Your task to perform on an android device: open app "Upside-Cash back on gas & food" Image 0: 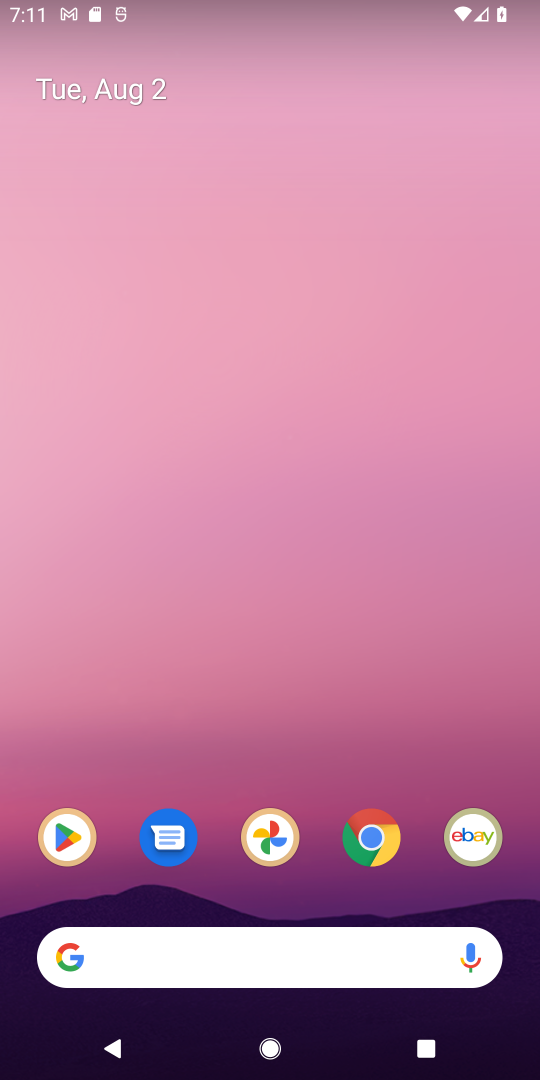
Step 0: click (65, 833)
Your task to perform on an android device: open app "Upside-Cash back on gas & food" Image 1: 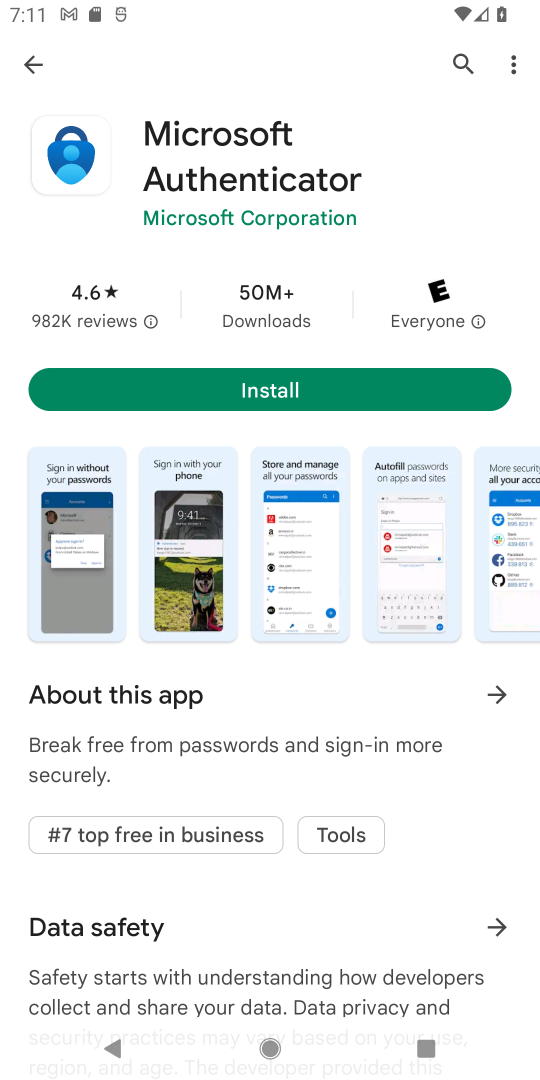
Step 1: drag from (385, 221) to (362, 984)
Your task to perform on an android device: open app "Upside-Cash back on gas & food" Image 2: 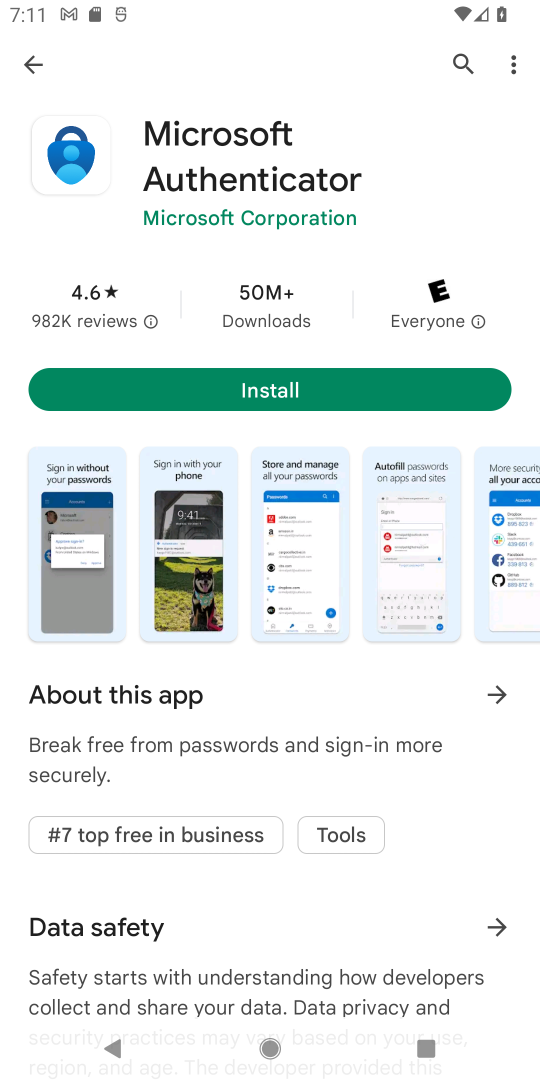
Step 2: press home button
Your task to perform on an android device: open app "Upside-Cash back on gas & food" Image 3: 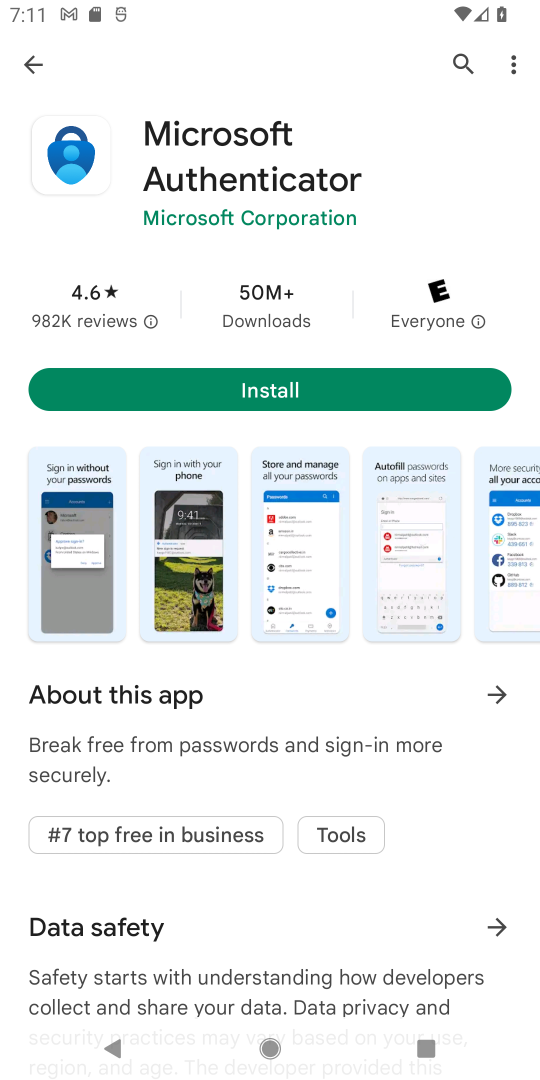
Step 3: press home button
Your task to perform on an android device: open app "Upside-Cash back on gas & food" Image 4: 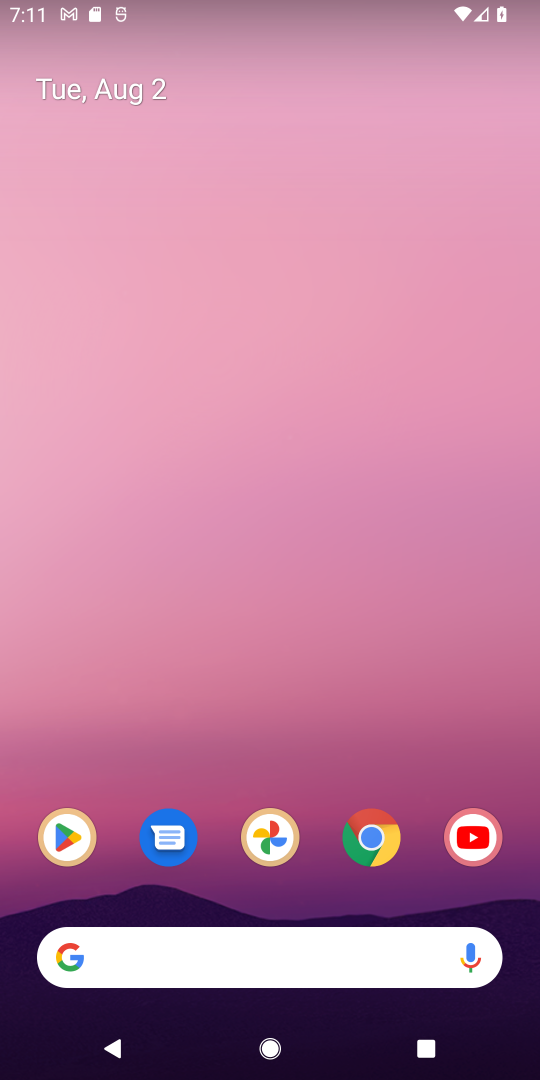
Step 4: drag from (281, 950) to (389, 150)
Your task to perform on an android device: open app "Upside-Cash back on gas & food" Image 5: 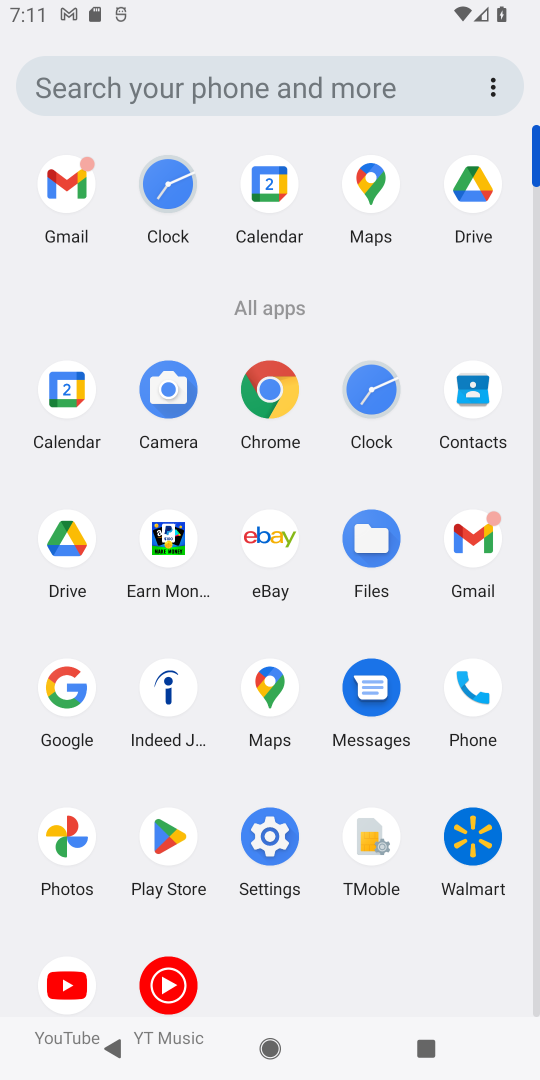
Step 5: click (176, 832)
Your task to perform on an android device: open app "Upside-Cash back on gas & food" Image 6: 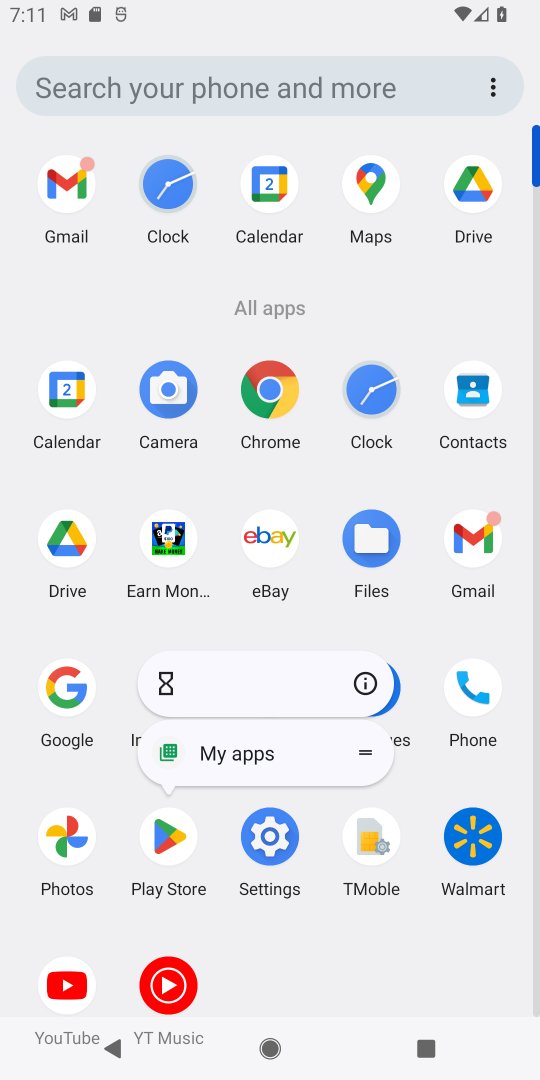
Step 6: click (368, 692)
Your task to perform on an android device: open app "Upside-Cash back on gas & food" Image 7: 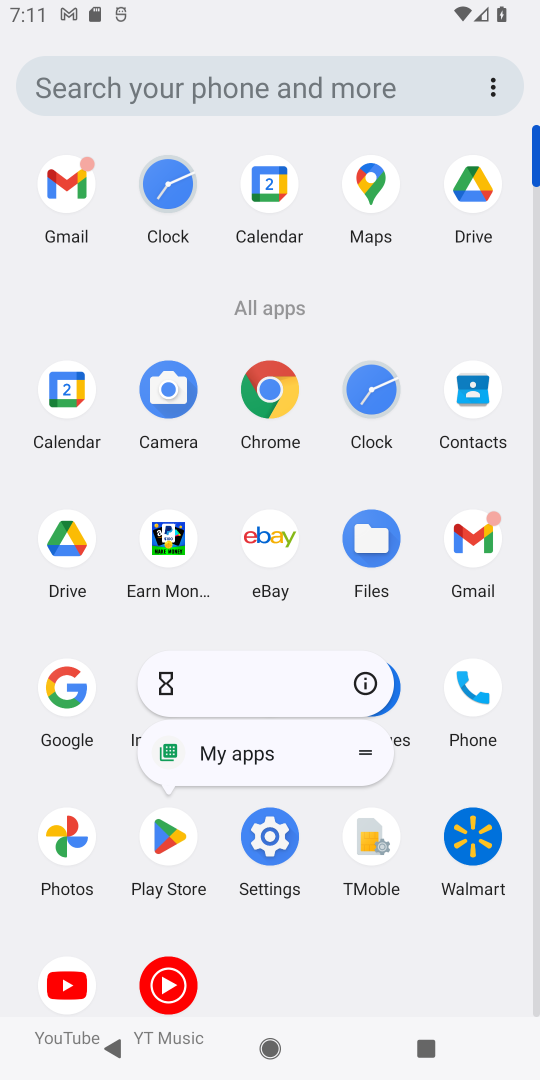
Step 7: click (365, 673)
Your task to perform on an android device: open app "Upside-Cash back on gas & food" Image 8: 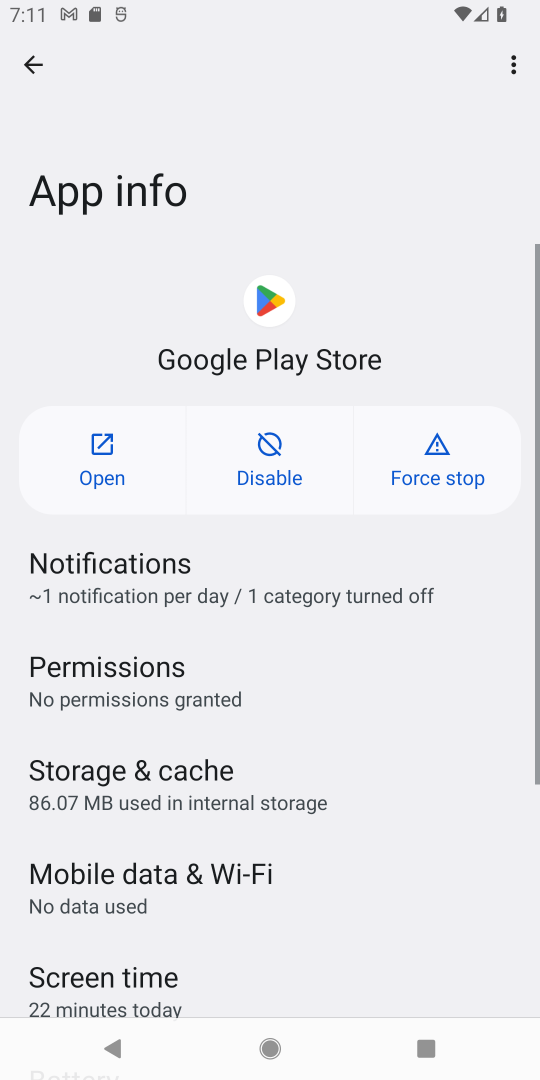
Step 8: click (84, 453)
Your task to perform on an android device: open app "Upside-Cash back on gas & food" Image 9: 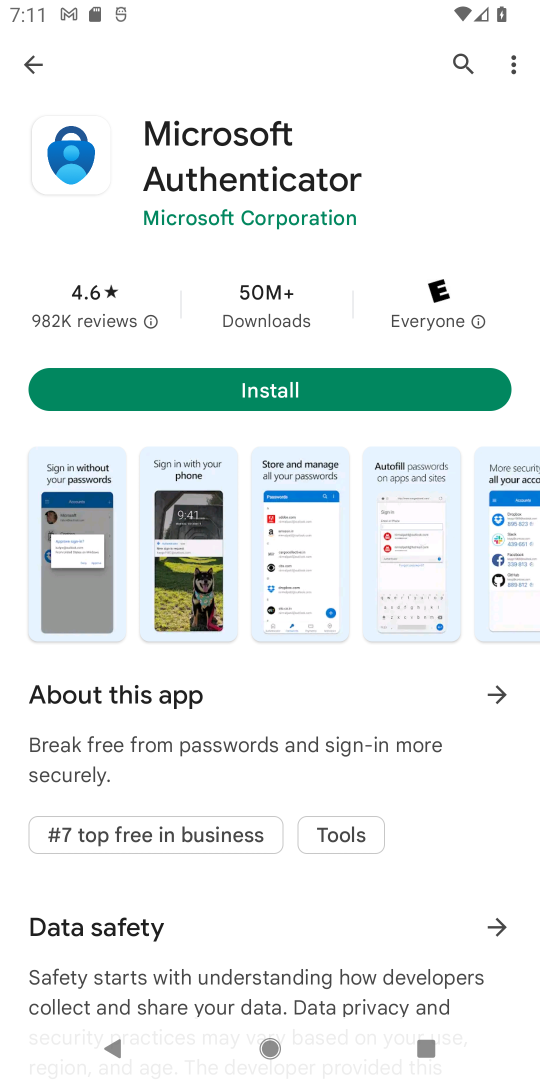
Step 9: drag from (375, 186) to (334, 713)
Your task to perform on an android device: open app "Upside-Cash back on gas & food" Image 10: 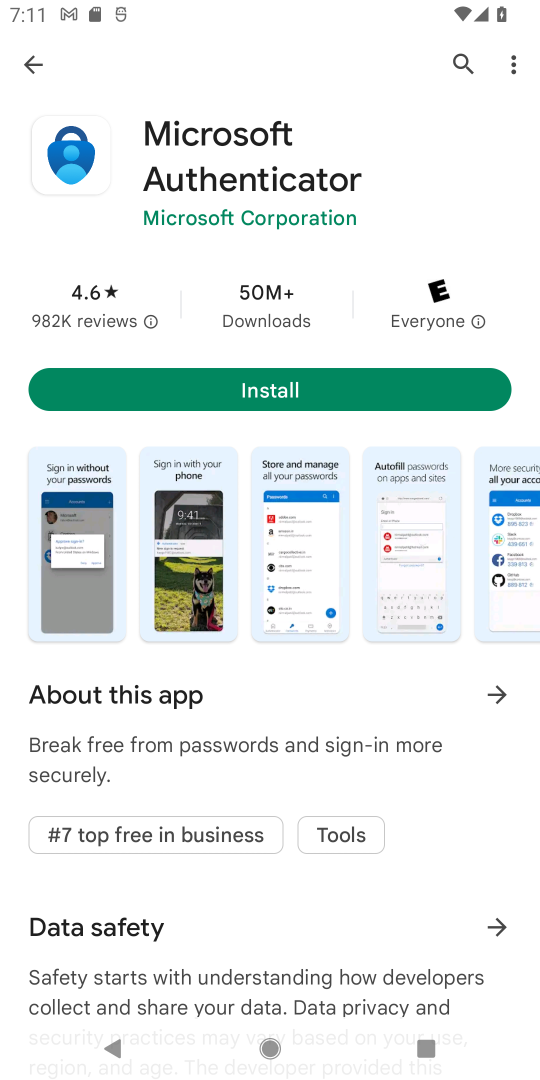
Step 10: click (472, 50)
Your task to perform on an android device: open app "Upside-Cash back on gas & food" Image 11: 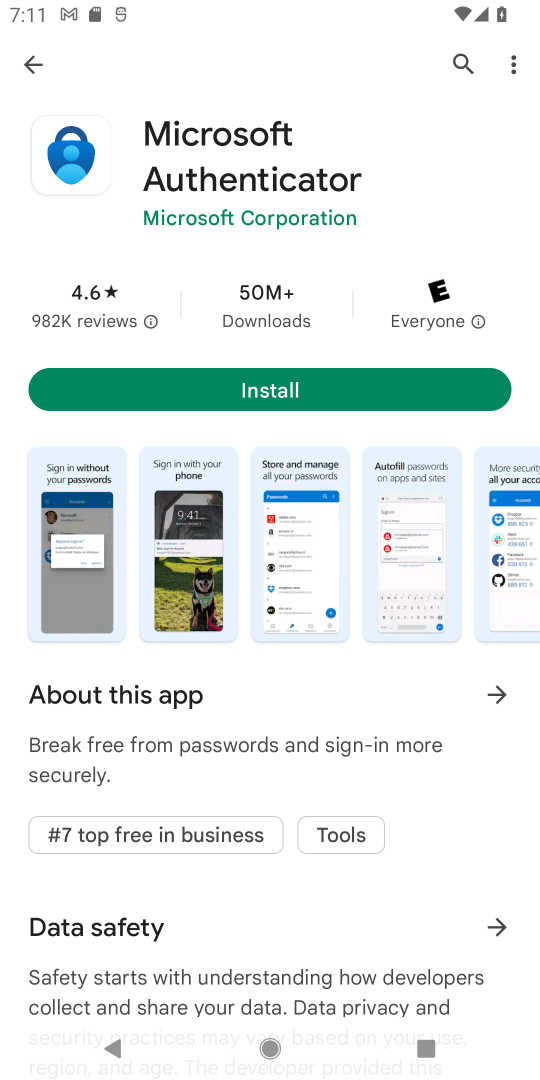
Step 11: click (460, 62)
Your task to perform on an android device: open app "Upside-Cash back on gas & food" Image 12: 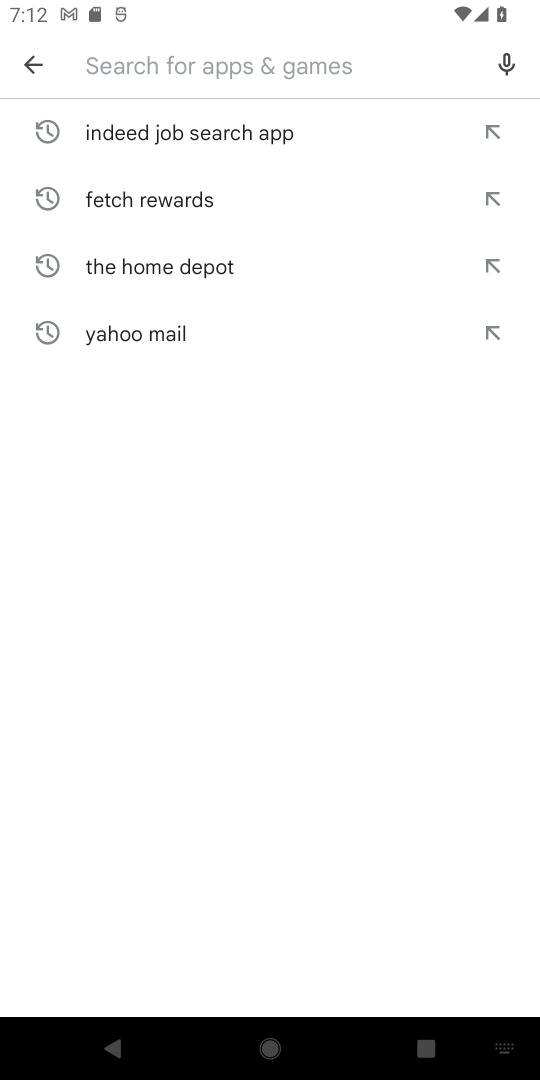
Step 12: click (213, 58)
Your task to perform on an android device: open app "Upside-Cash back on gas & food" Image 13: 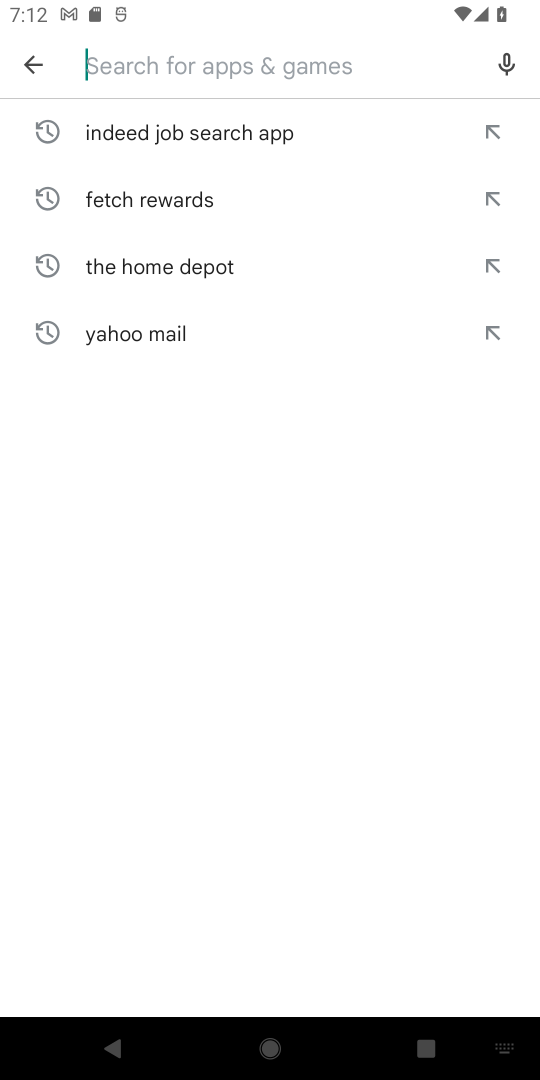
Step 13: type "Upside-Cash back on gas & food"
Your task to perform on an android device: open app "Upside-Cash back on gas & food" Image 14: 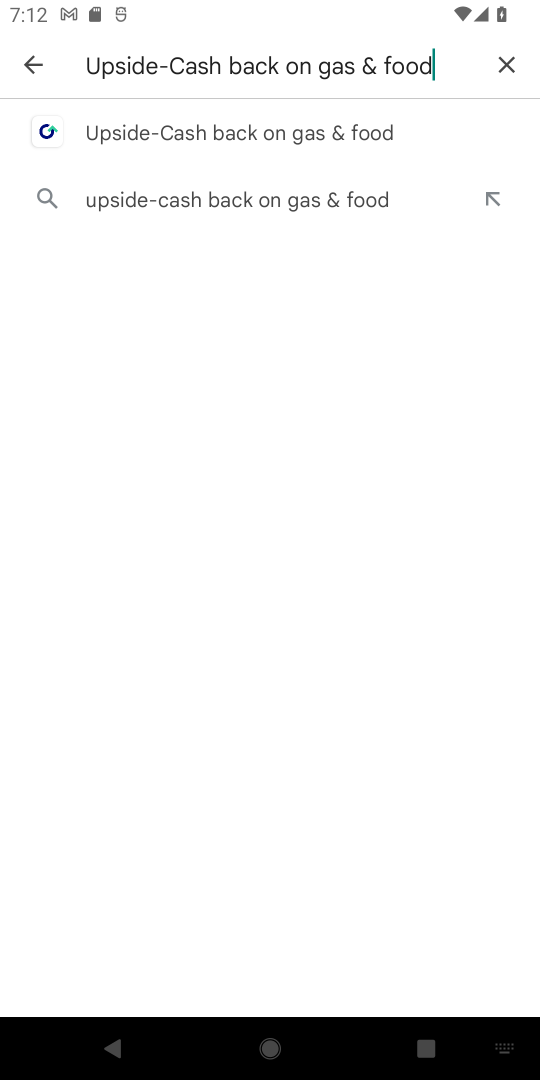
Step 14: click (186, 153)
Your task to perform on an android device: open app "Upside-Cash back on gas & food" Image 15: 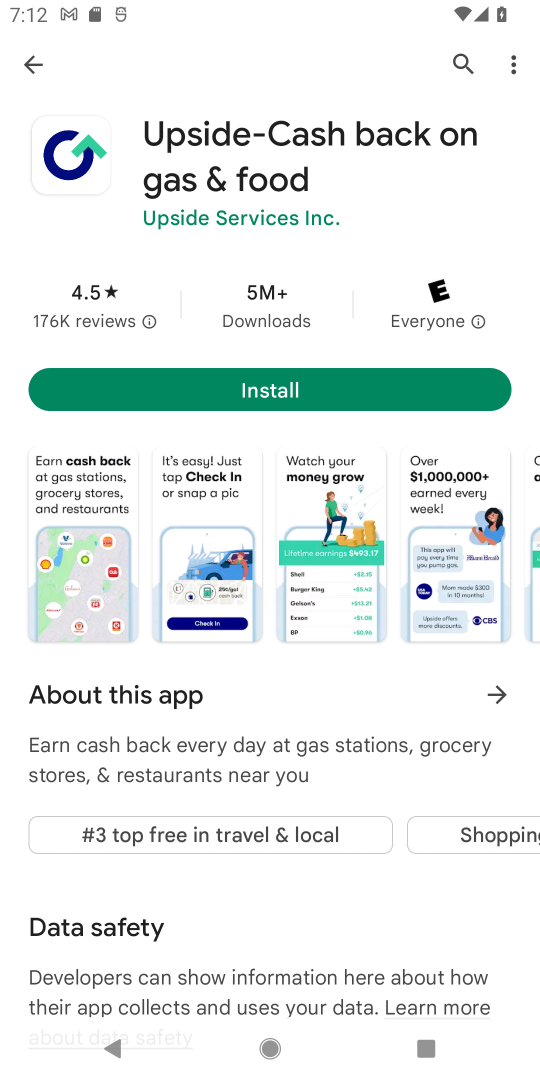
Step 15: drag from (268, 247) to (380, 698)
Your task to perform on an android device: open app "Upside-Cash back on gas & food" Image 16: 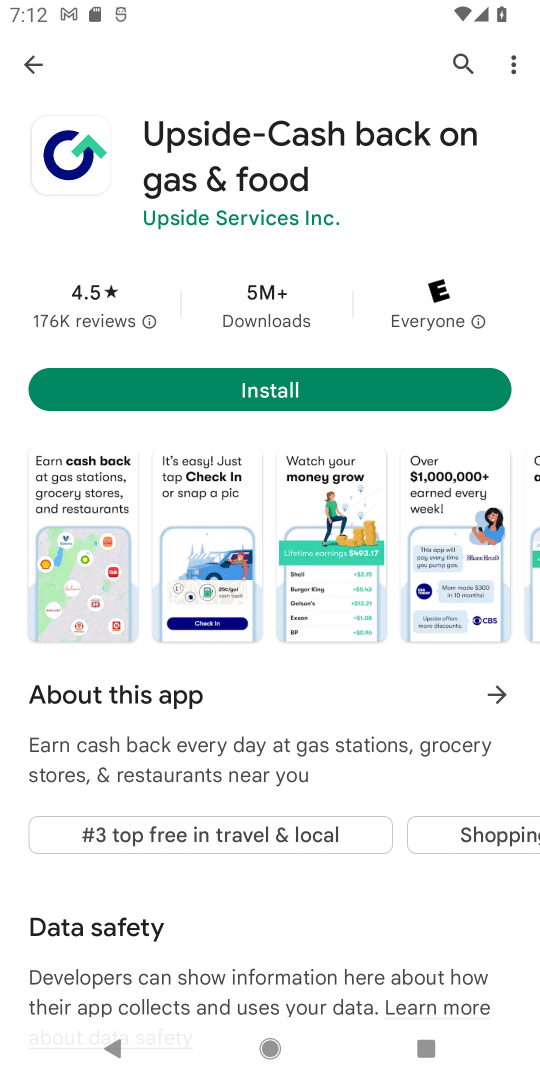
Step 16: drag from (248, 159) to (382, 958)
Your task to perform on an android device: open app "Upside-Cash back on gas & food" Image 17: 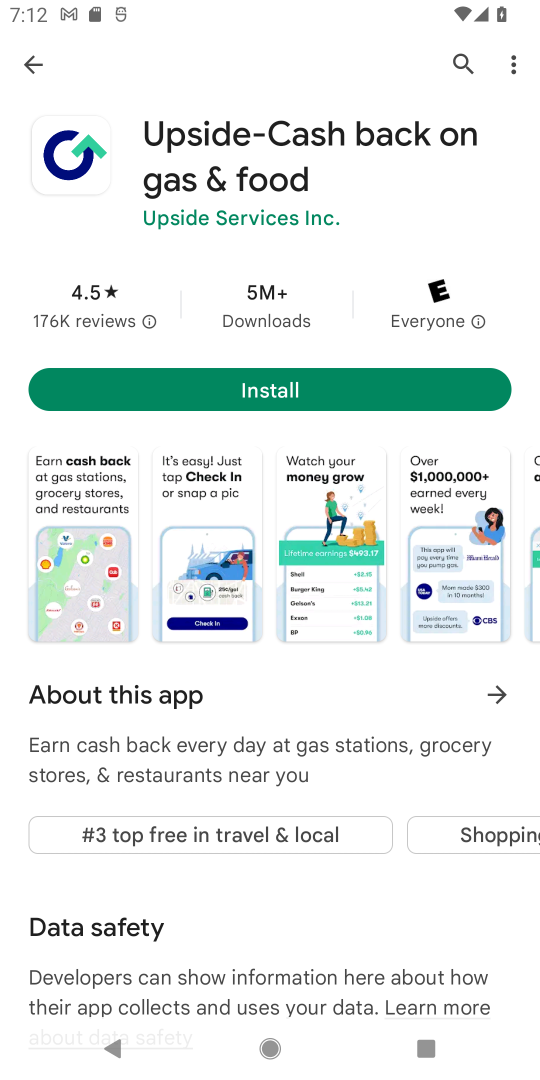
Step 17: drag from (241, 127) to (368, 666)
Your task to perform on an android device: open app "Upside-Cash back on gas & food" Image 18: 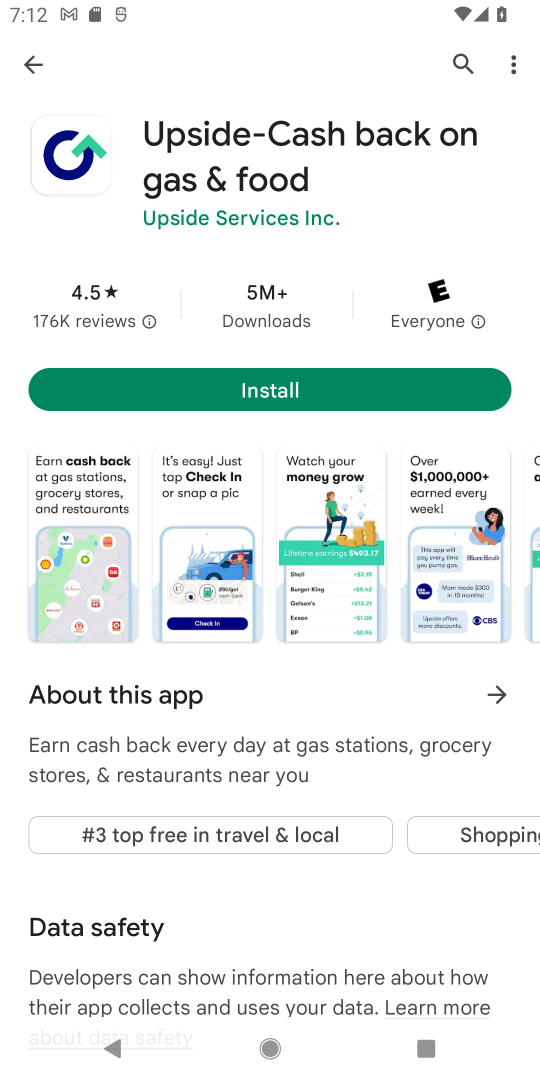
Step 18: drag from (302, 159) to (316, 645)
Your task to perform on an android device: open app "Upside-Cash back on gas & food" Image 19: 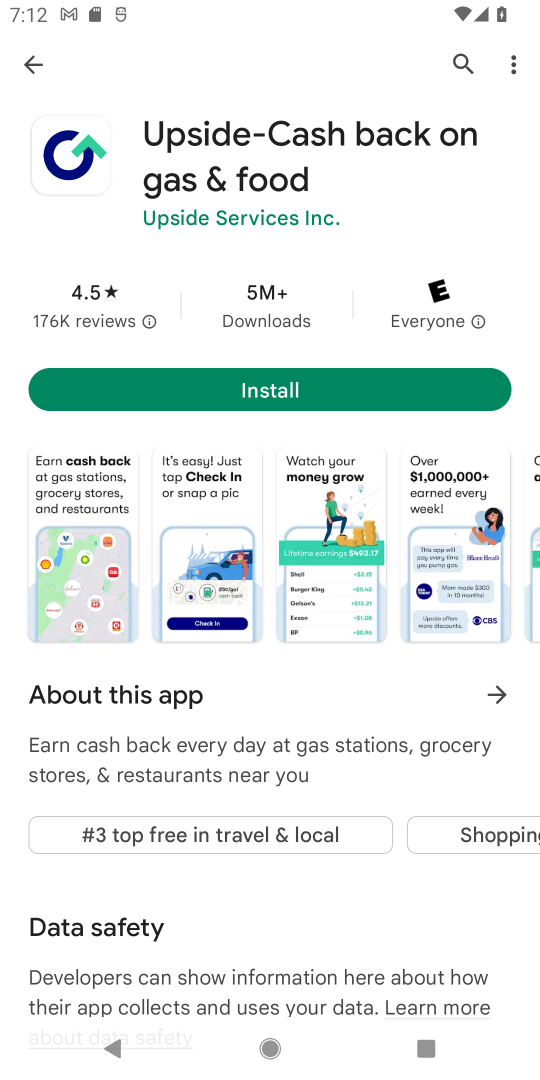
Step 19: drag from (354, 152) to (350, 848)
Your task to perform on an android device: open app "Upside-Cash back on gas & food" Image 20: 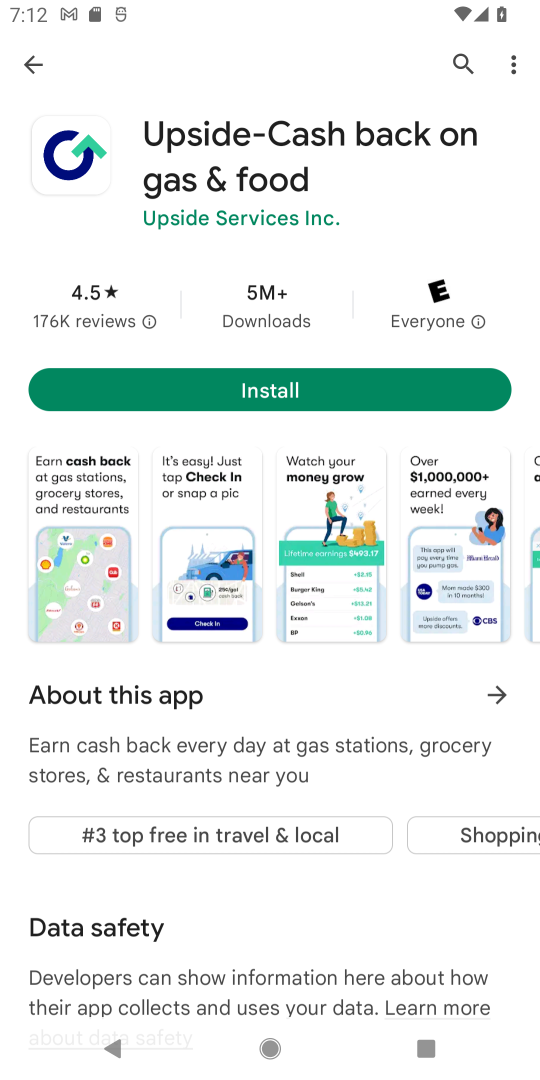
Step 20: drag from (378, 190) to (321, 853)
Your task to perform on an android device: open app "Upside-Cash back on gas & food" Image 21: 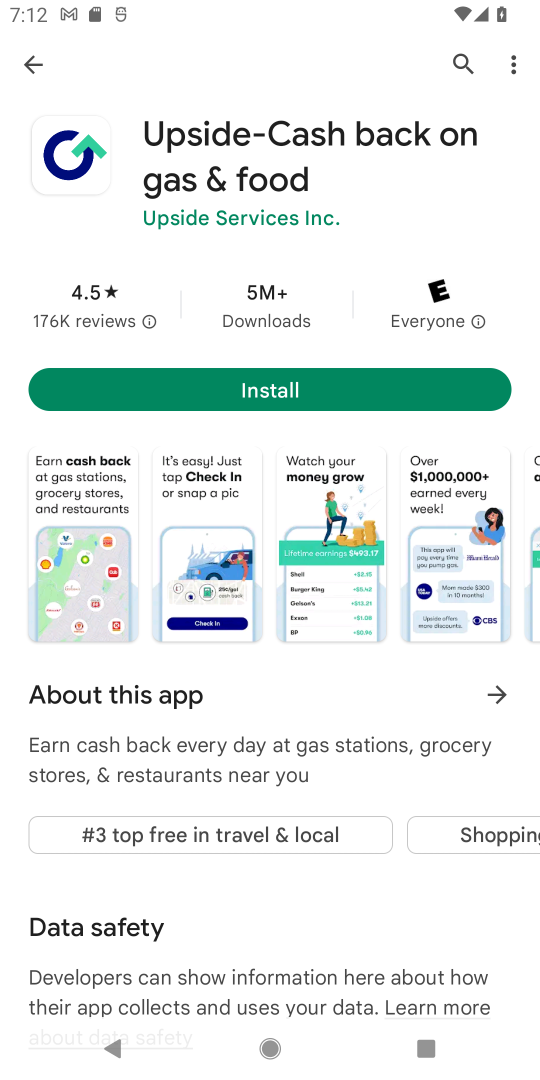
Step 21: drag from (355, 144) to (319, 1074)
Your task to perform on an android device: open app "Upside-Cash back on gas & food" Image 22: 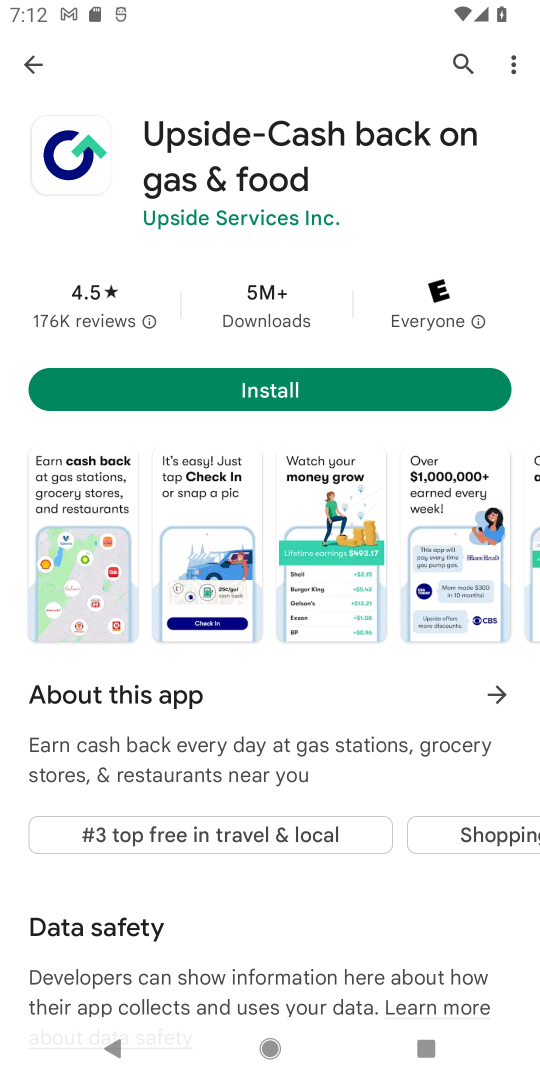
Step 22: drag from (284, 158) to (313, 826)
Your task to perform on an android device: open app "Upside-Cash back on gas & food" Image 23: 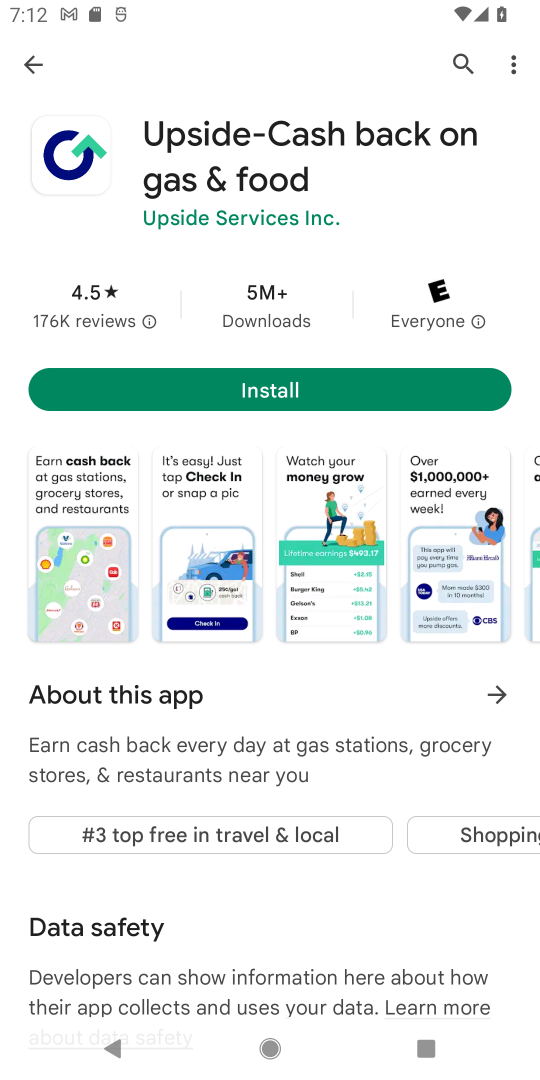
Step 23: drag from (349, 217) to (337, 913)
Your task to perform on an android device: open app "Upside-Cash back on gas & food" Image 24: 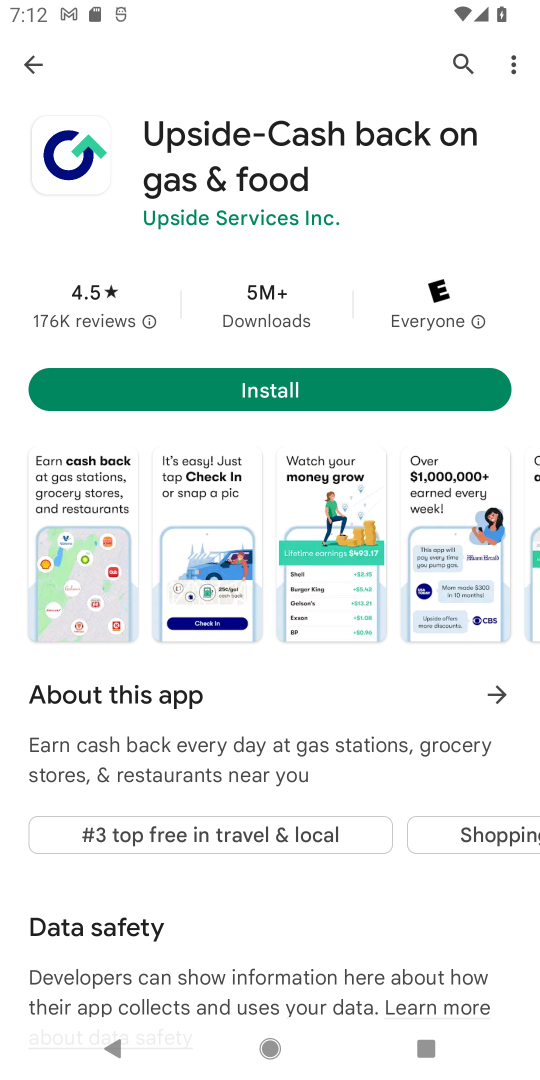
Step 24: drag from (341, 380) to (303, 966)
Your task to perform on an android device: open app "Upside-Cash back on gas & food" Image 25: 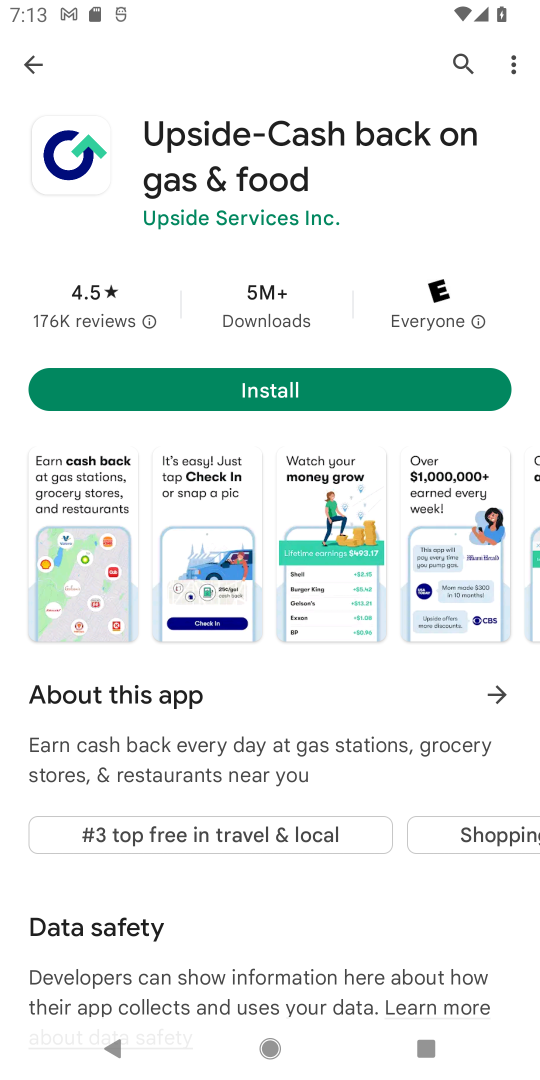
Step 25: drag from (365, 224) to (291, 783)
Your task to perform on an android device: open app "Upside-Cash back on gas & food" Image 26: 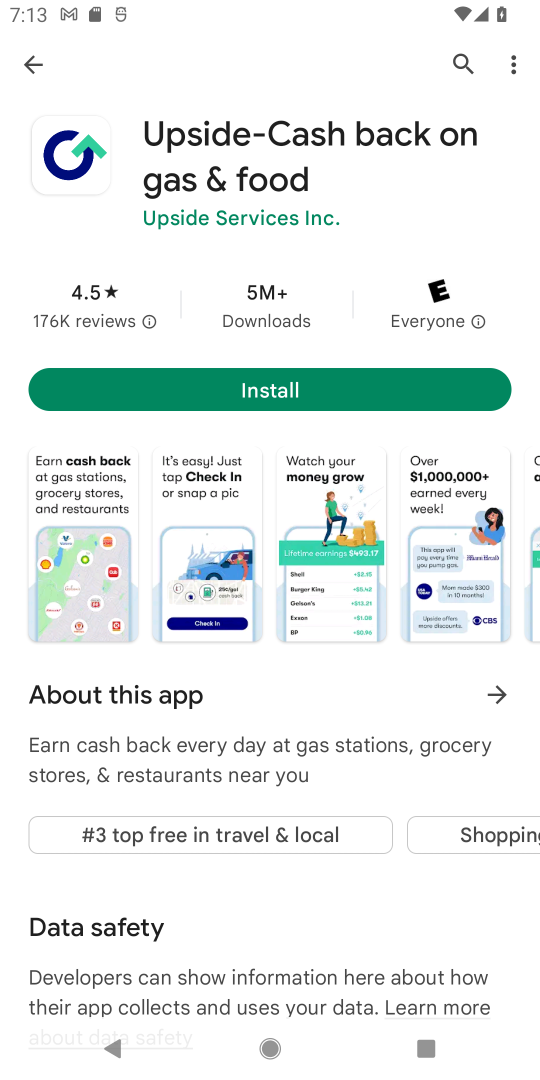
Step 26: drag from (345, 226) to (528, 234)
Your task to perform on an android device: open app "Upside-Cash back on gas & food" Image 27: 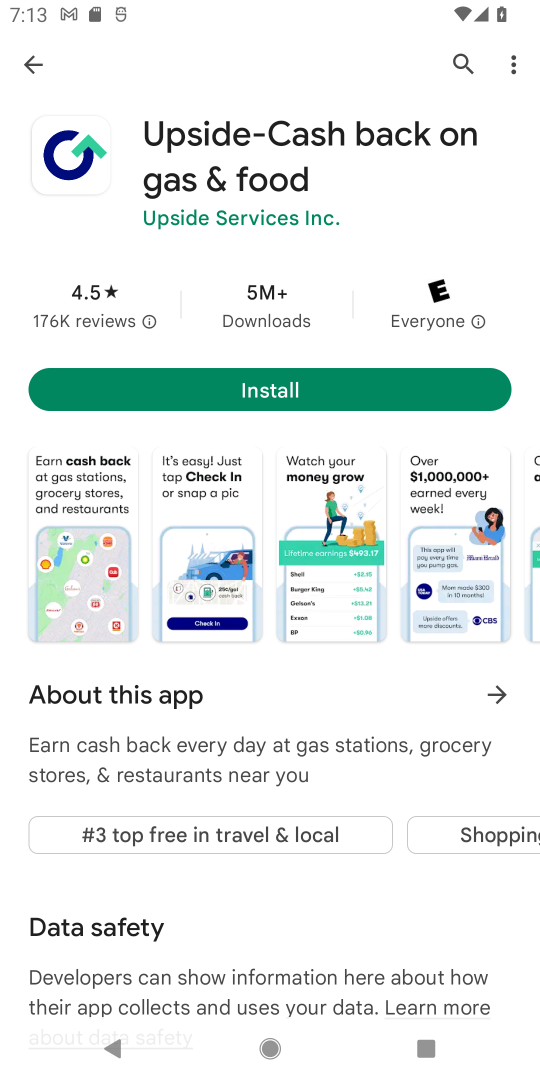
Step 27: drag from (346, 205) to (346, 888)
Your task to perform on an android device: open app "Upside-Cash back on gas & food" Image 28: 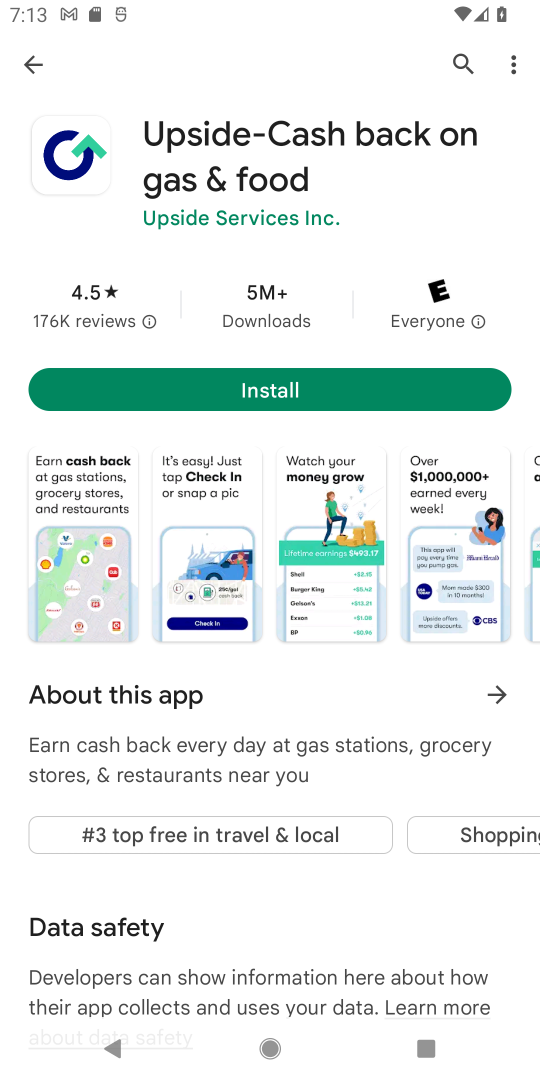
Step 28: drag from (207, 179) to (274, 1031)
Your task to perform on an android device: open app "Upside-Cash back on gas & food" Image 29: 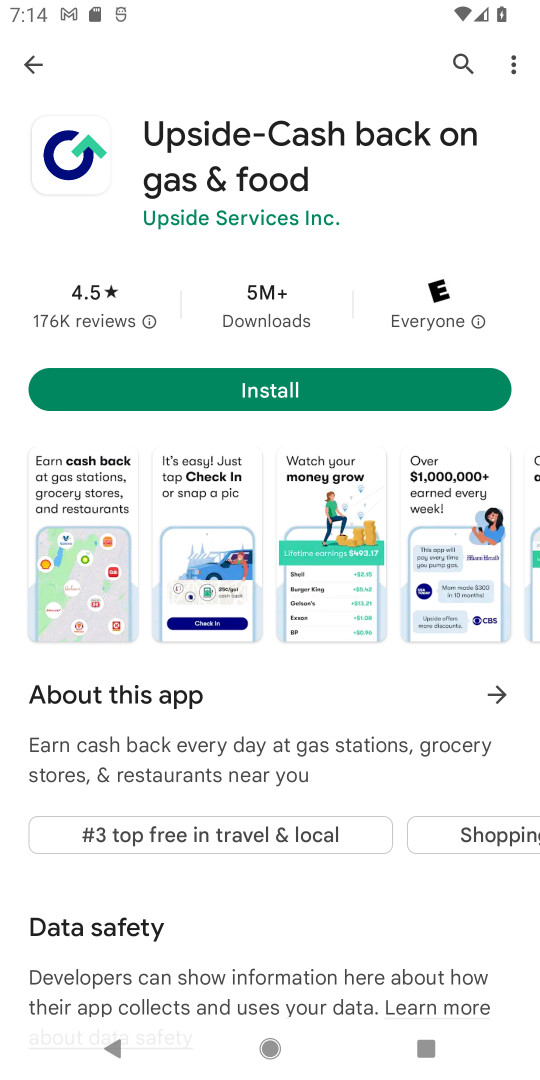
Step 29: drag from (394, 200) to (388, 665)
Your task to perform on an android device: open app "Upside-Cash back on gas & food" Image 30: 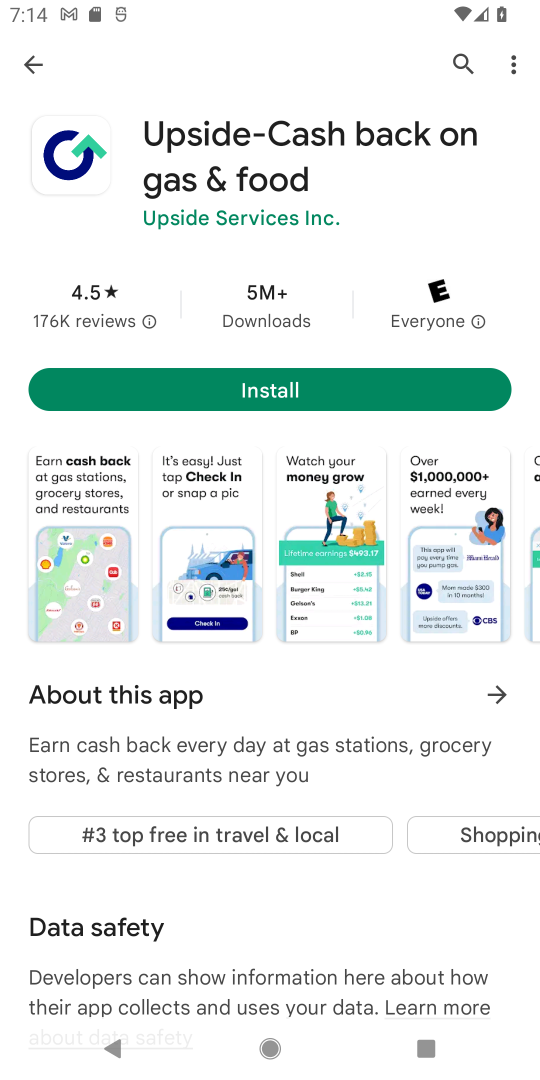
Step 30: drag from (339, 197) to (234, 720)
Your task to perform on an android device: open app "Upside-Cash back on gas & food" Image 31: 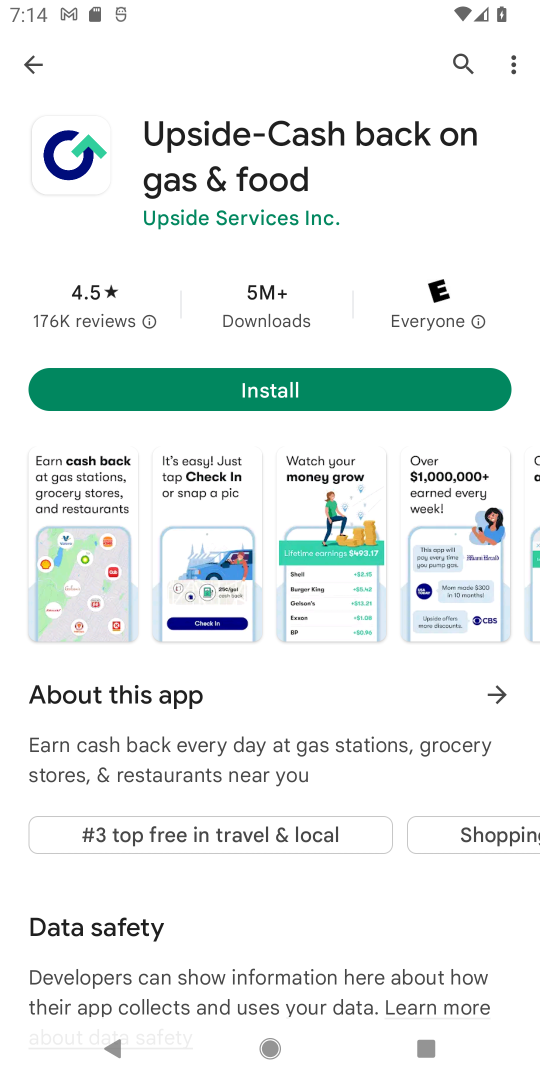
Step 31: drag from (313, 216) to (252, 641)
Your task to perform on an android device: open app "Upside-Cash back on gas & food" Image 32: 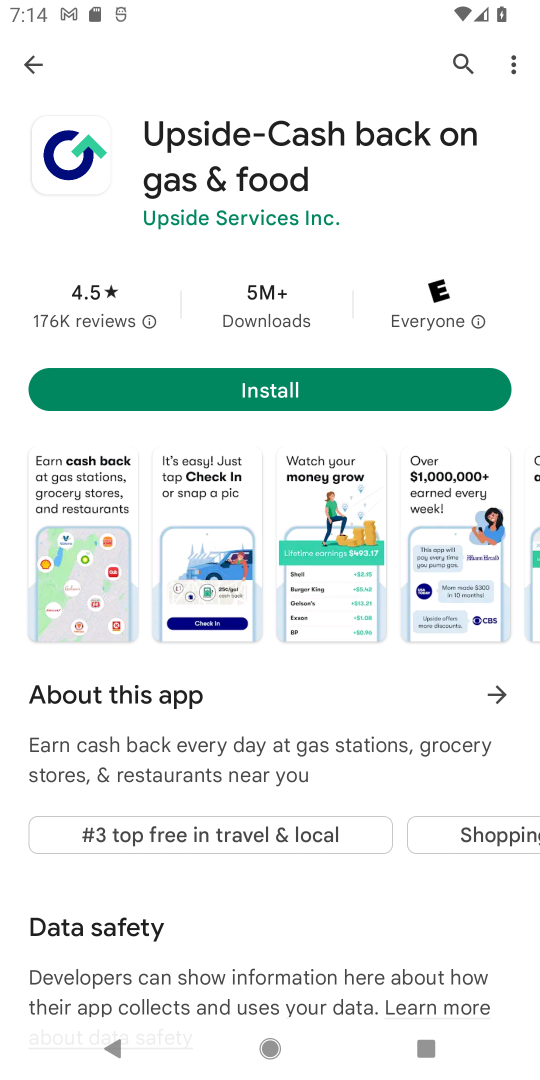
Step 32: drag from (364, 191) to (240, 748)
Your task to perform on an android device: open app "Upside-Cash back on gas & food" Image 33: 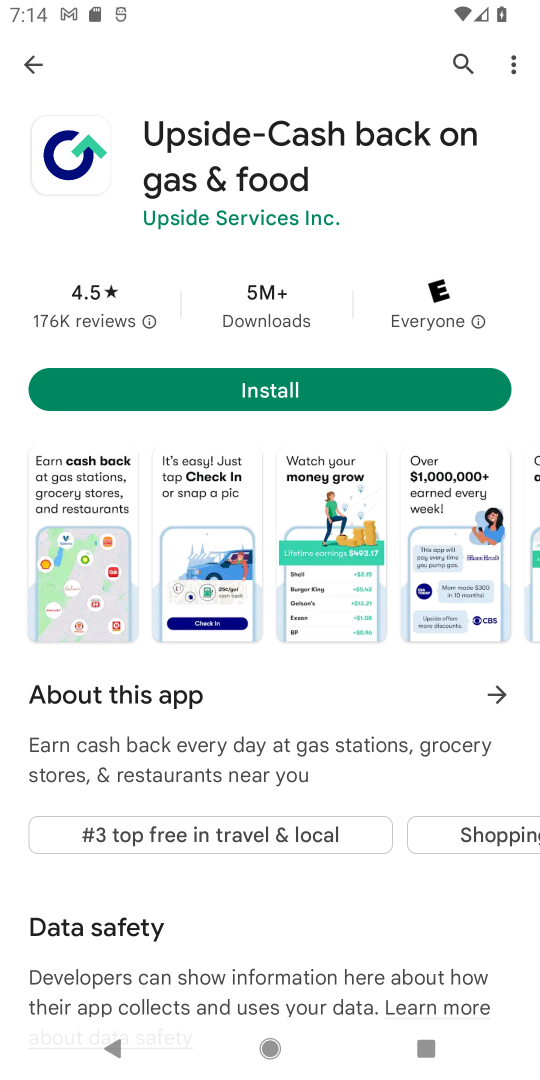
Step 33: click (462, 52)
Your task to perform on an android device: open app "Upside-Cash back on gas & food" Image 34: 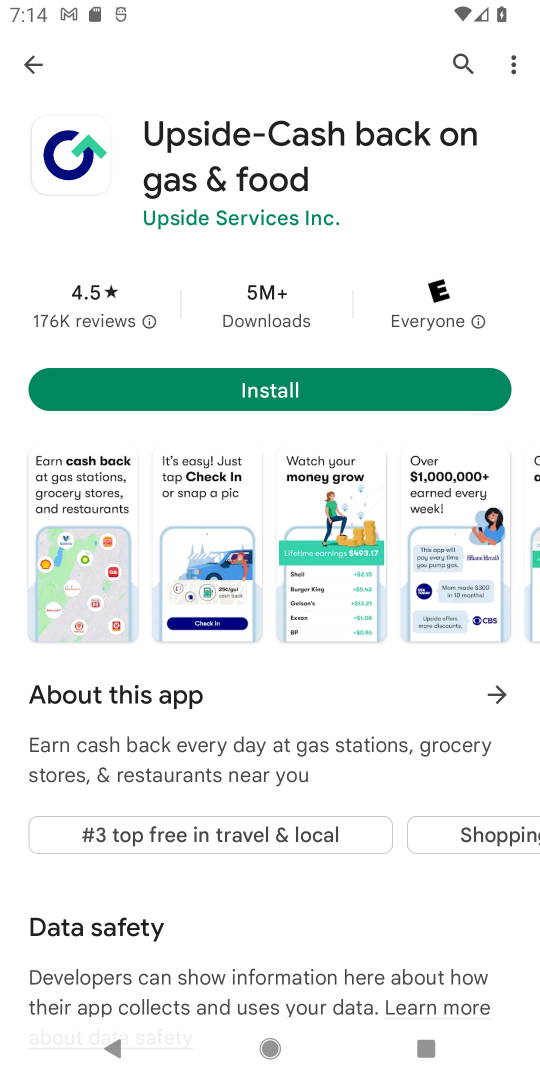
Step 34: click (454, 51)
Your task to perform on an android device: open app "Upside-Cash back on gas & food" Image 35: 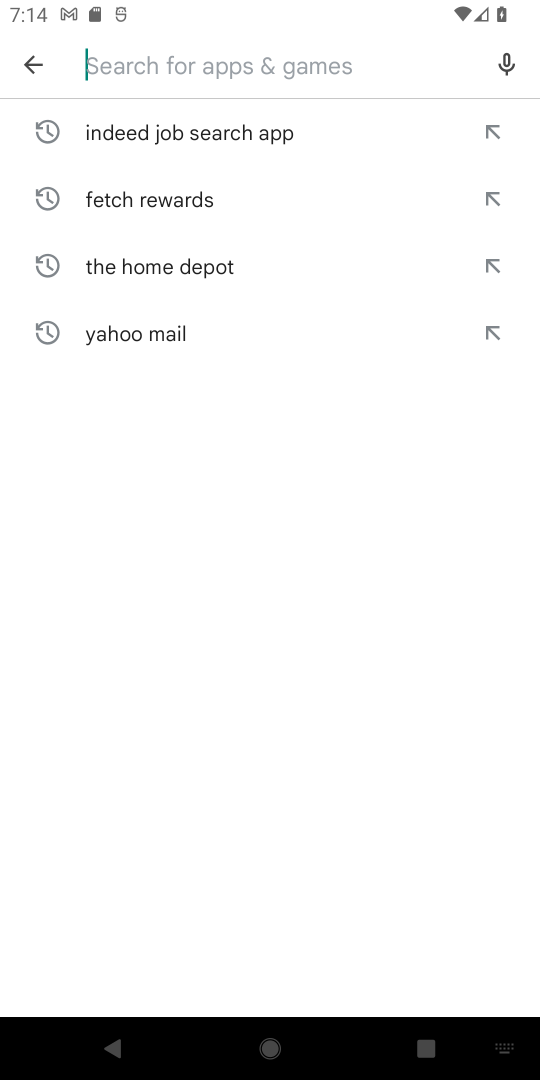
Step 35: type "Upside-Cash back on gas & food"
Your task to perform on an android device: open app "Upside-Cash back on gas & food" Image 36: 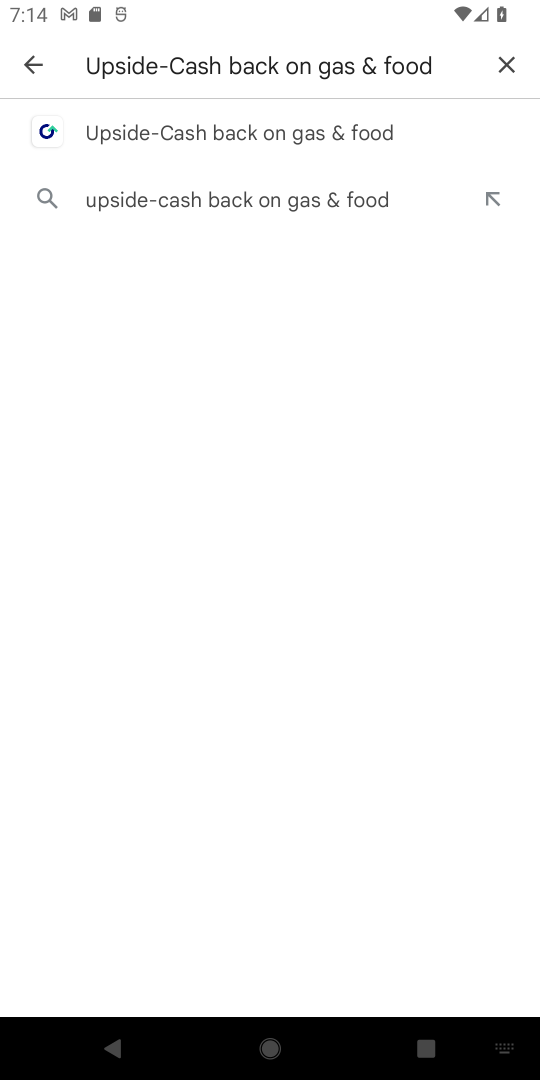
Step 36: click (178, 108)
Your task to perform on an android device: open app "Upside-Cash back on gas & food" Image 37: 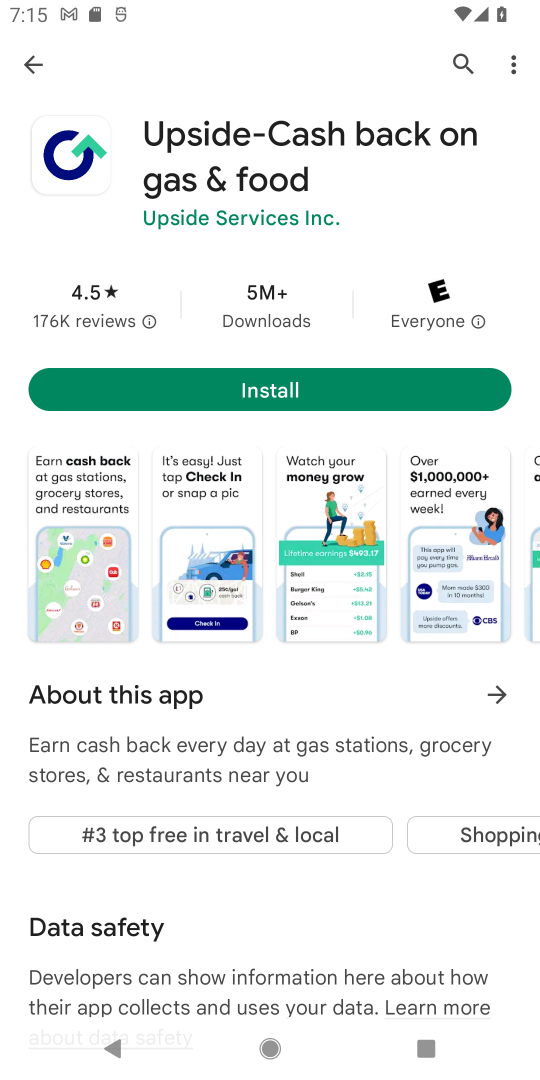
Step 37: task complete